Your task to perform on an android device: Open display settings Image 0: 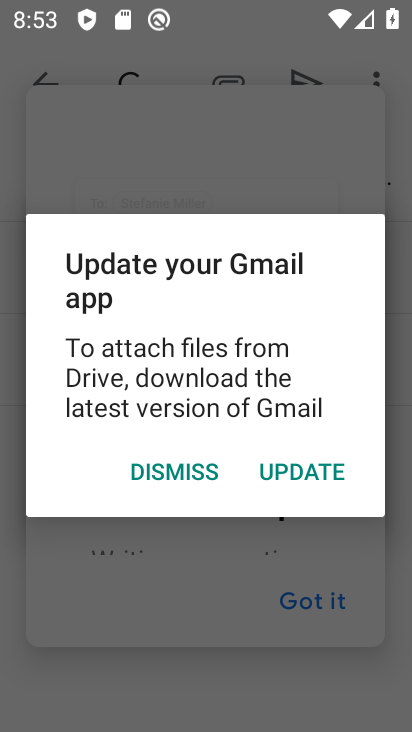
Step 0: press home button
Your task to perform on an android device: Open display settings Image 1: 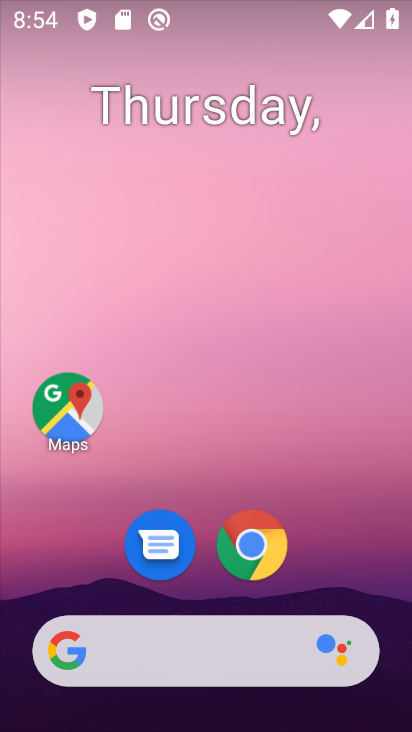
Step 1: drag from (368, 591) to (250, 5)
Your task to perform on an android device: Open display settings Image 2: 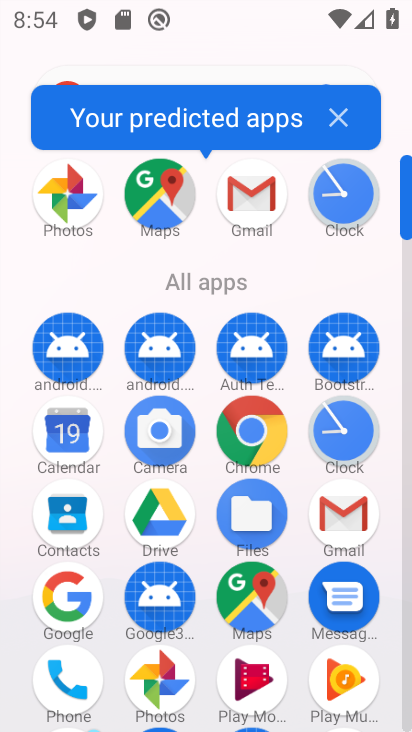
Step 2: drag from (206, 657) to (208, 231)
Your task to perform on an android device: Open display settings Image 3: 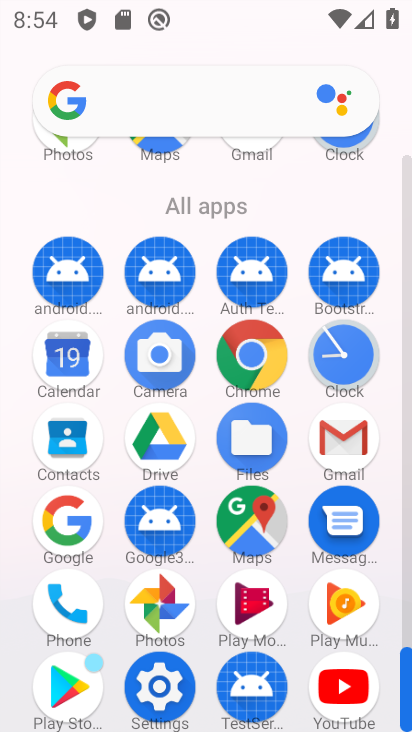
Step 3: click (159, 707)
Your task to perform on an android device: Open display settings Image 4: 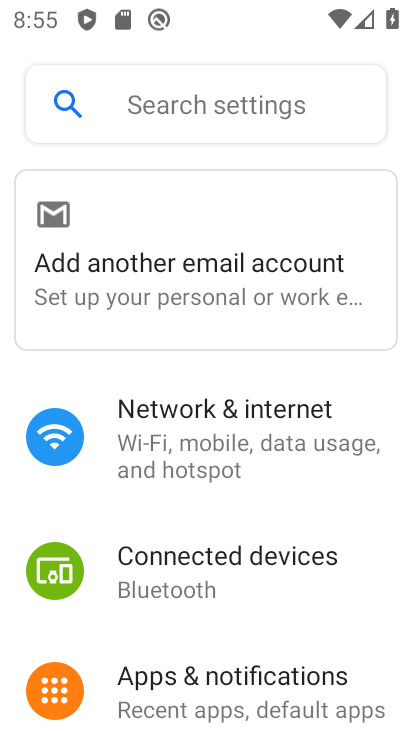
Step 4: drag from (177, 669) to (152, 230)
Your task to perform on an android device: Open display settings Image 5: 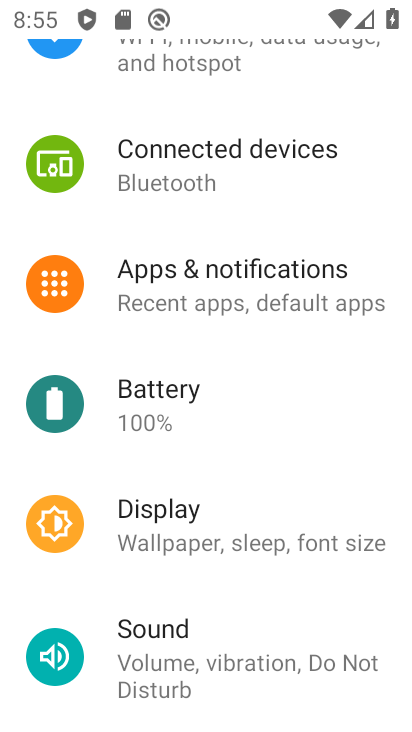
Step 5: click (166, 506)
Your task to perform on an android device: Open display settings Image 6: 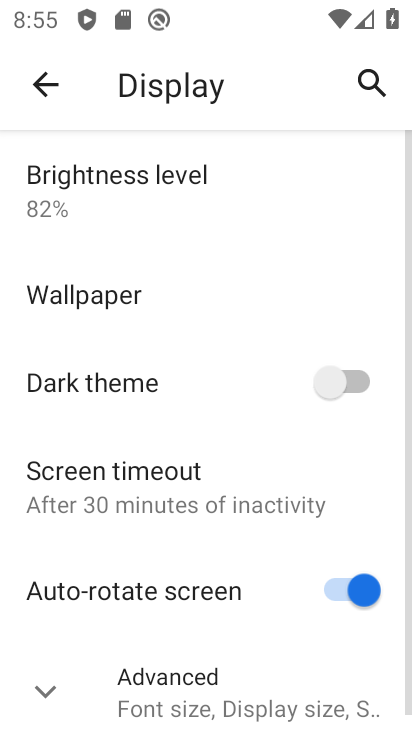
Step 6: task complete